Your task to perform on an android device: Search for sushi restaurants on Maps Image 0: 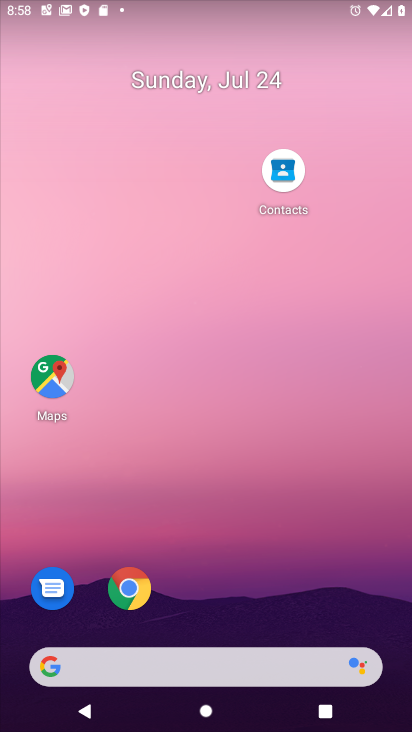
Step 0: press home button
Your task to perform on an android device: Search for sushi restaurants on Maps Image 1: 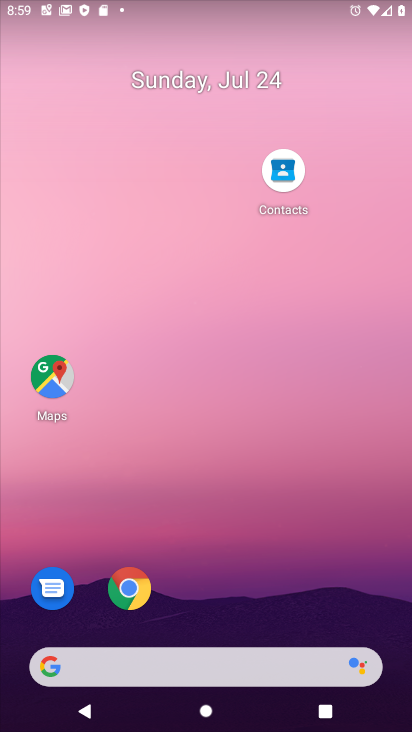
Step 1: click (47, 369)
Your task to perform on an android device: Search for sushi restaurants on Maps Image 2: 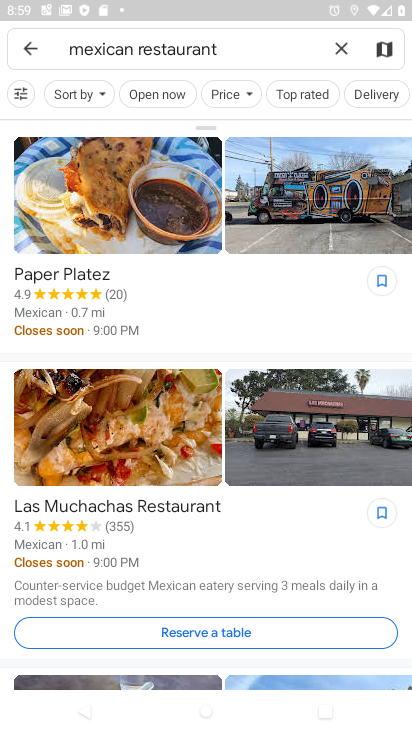
Step 2: click (34, 41)
Your task to perform on an android device: Search for sushi restaurants on Maps Image 3: 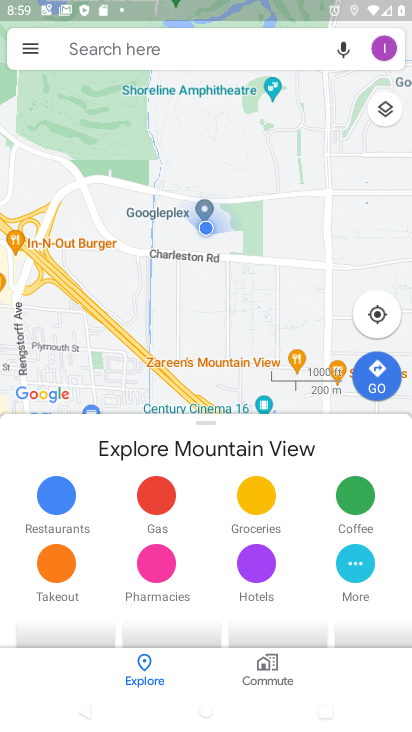
Step 3: click (147, 45)
Your task to perform on an android device: Search for sushi restaurants on Maps Image 4: 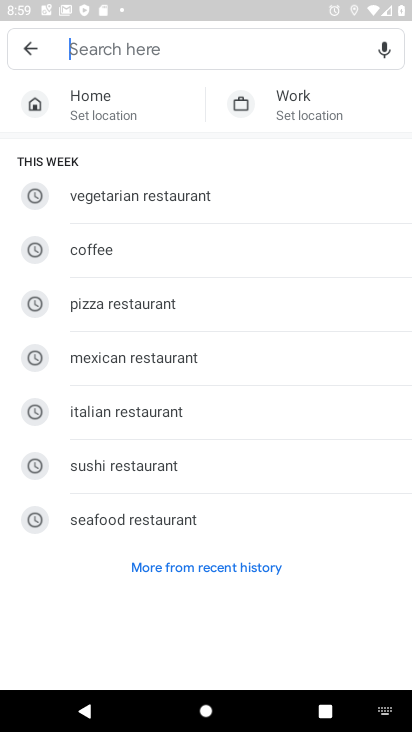
Step 4: type "sushi"
Your task to perform on an android device: Search for sushi restaurants on Maps Image 5: 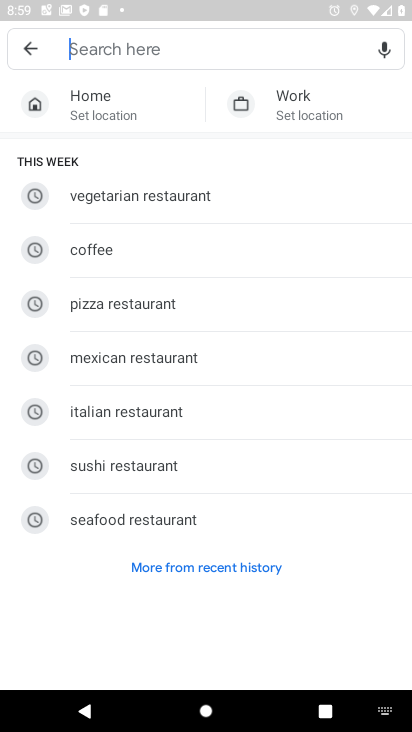
Step 5: click (184, 463)
Your task to perform on an android device: Search for sushi restaurants on Maps Image 6: 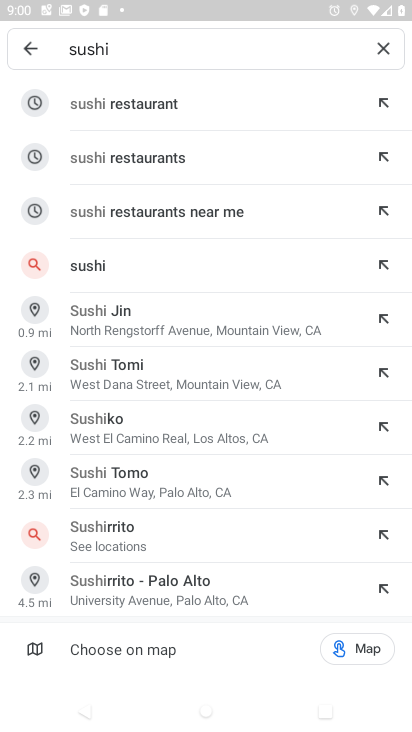
Step 6: click (153, 107)
Your task to perform on an android device: Search for sushi restaurants on Maps Image 7: 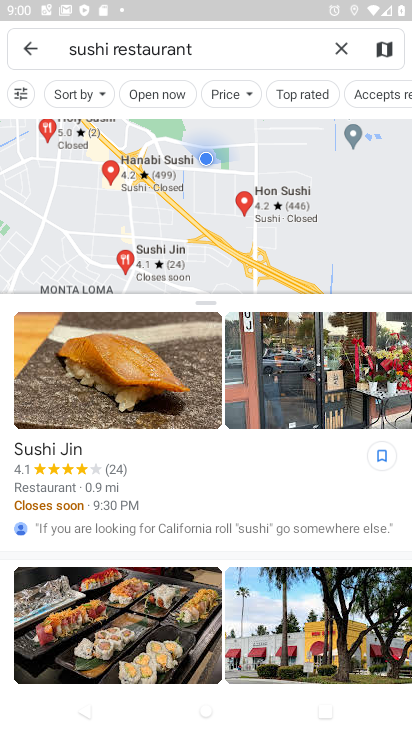
Step 7: task complete